Your task to perform on an android device: Open location settings Image 0: 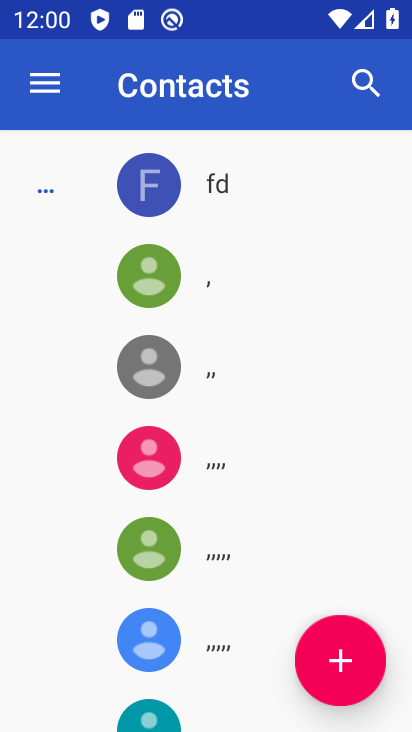
Step 0: press home button
Your task to perform on an android device: Open location settings Image 1: 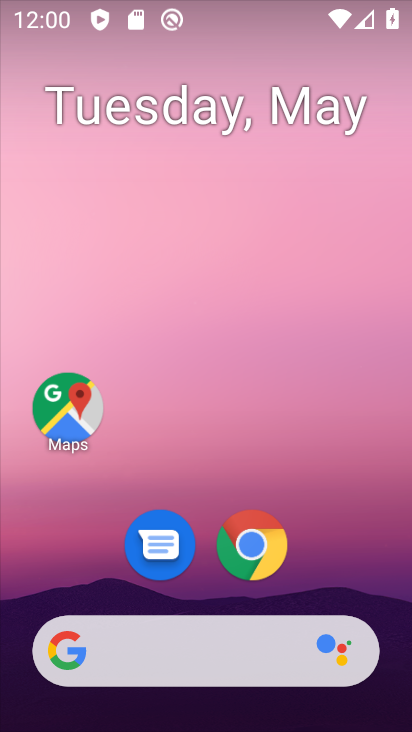
Step 1: drag from (215, 582) to (221, 70)
Your task to perform on an android device: Open location settings Image 2: 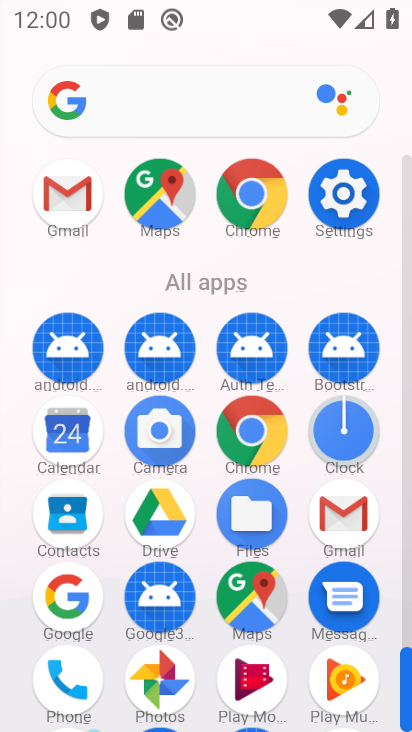
Step 2: click (369, 176)
Your task to perform on an android device: Open location settings Image 3: 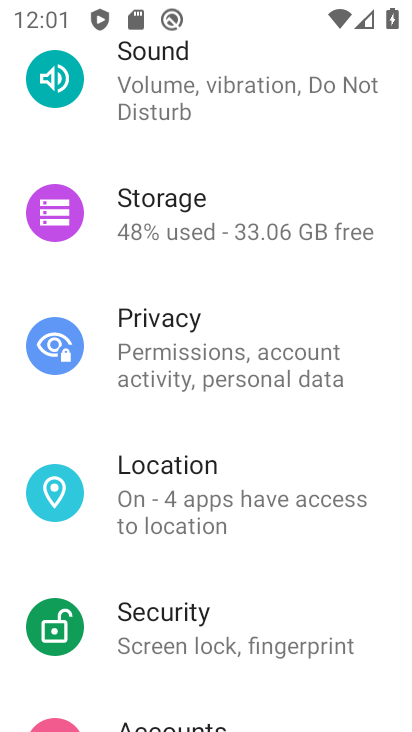
Step 3: click (210, 516)
Your task to perform on an android device: Open location settings Image 4: 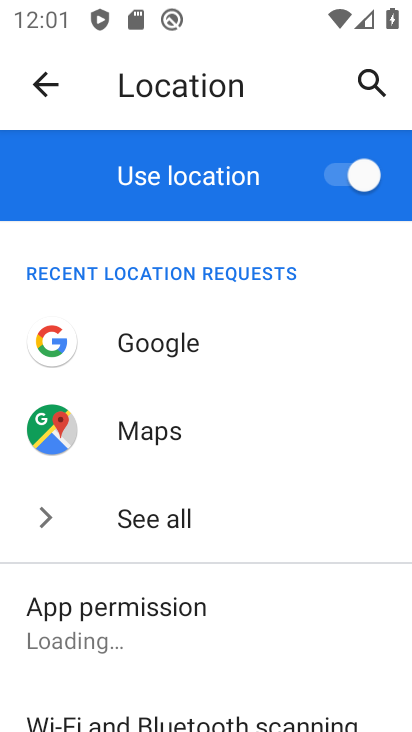
Step 4: task complete